Your task to perform on an android device: stop showing notifications on the lock screen Image 0: 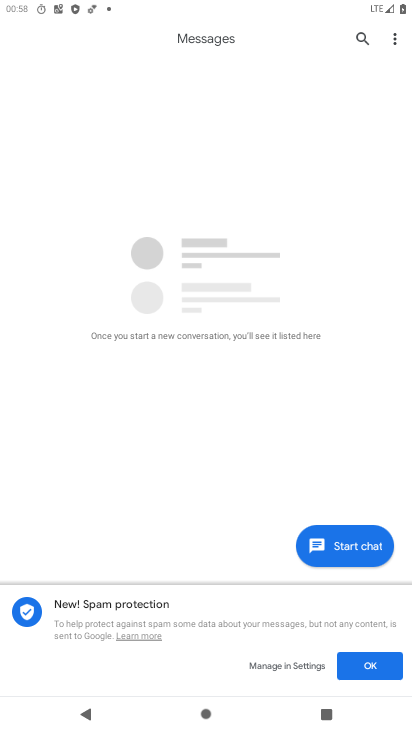
Step 0: press home button
Your task to perform on an android device: stop showing notifications on the lock screen Image 1: 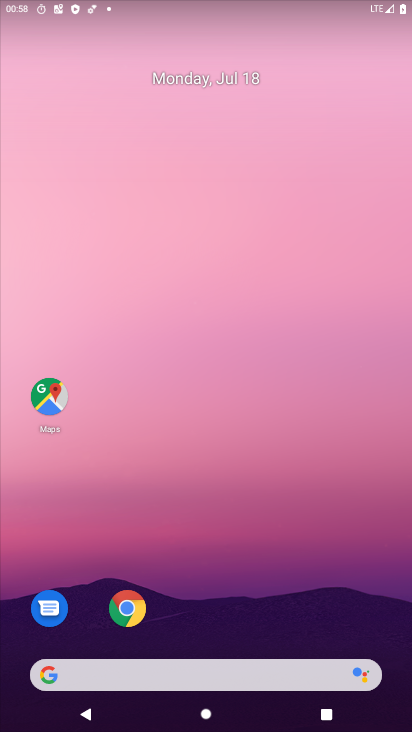
Step 1: drag from (244, 628) to (320, 61)
Your task to perform on an android device: stop showing notifications on the lock screen Image 2: 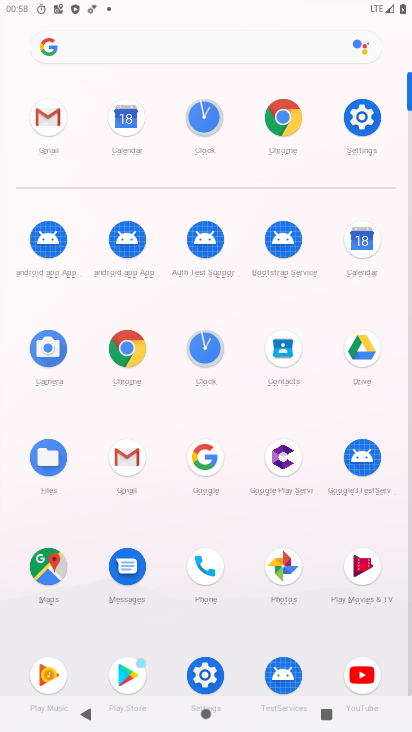
Step 2: click (364, 126)
Your task to perform on an android device: stop showing notifications on the lock screen Image 3: 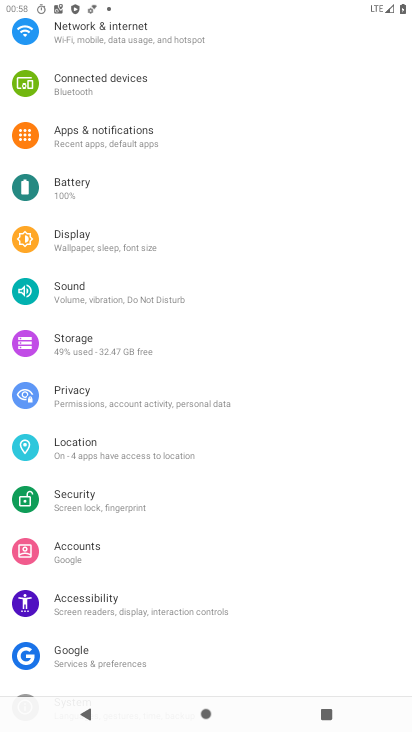
Step 3: click (135, 136)
Your task to perform on an android device: stop showing notifications on the lock screen Image 4: 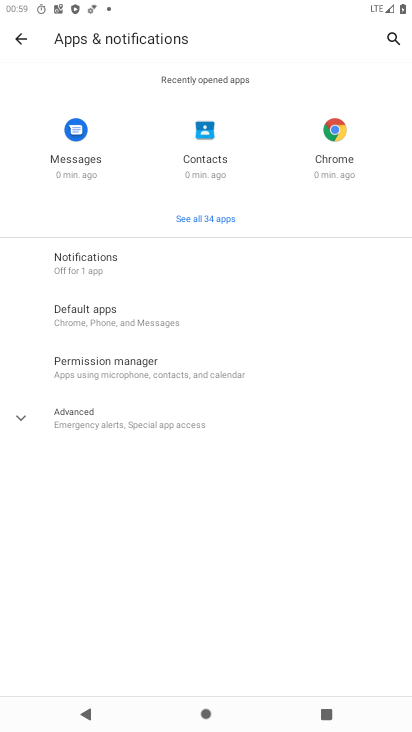
Step 4: click (79, 258)
Your task to perform on an android device: stop showing notifications on the lock screen Image 5: 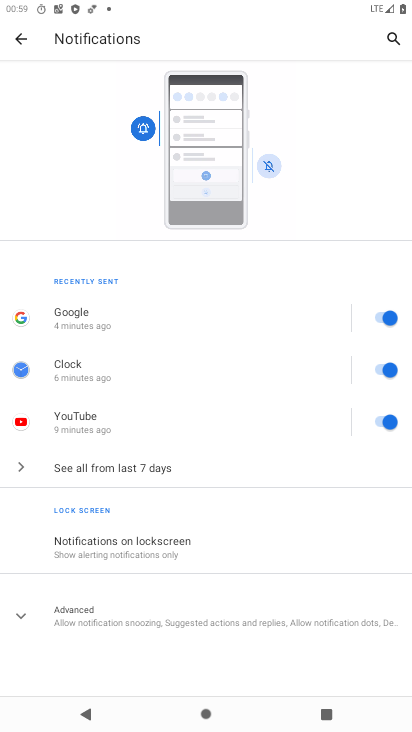
Step 5: click (140, 564)
Your task to perform on an android device: stop showing notifications on the lock screen Image 6: 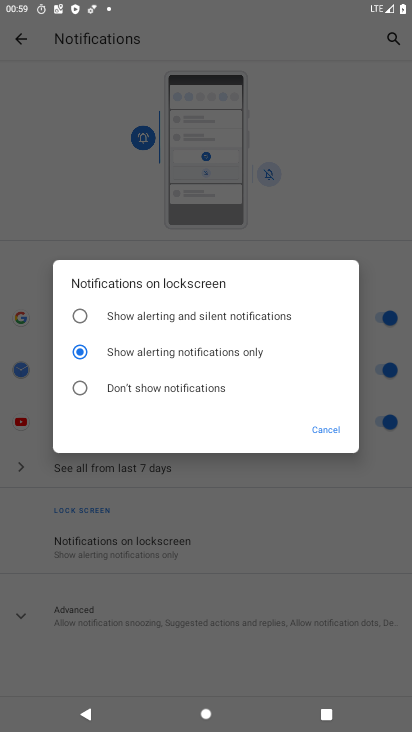
Step 6: click (124, 387)
Your task to perform on an android device: stop showing notifications on the lock screen Image 7: 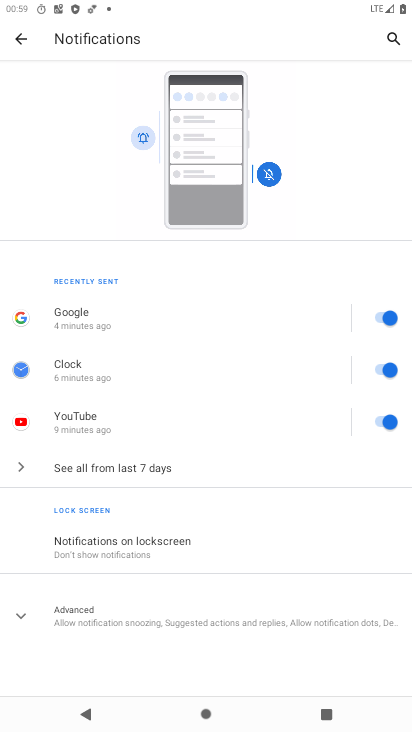
Step 7: task complete